Your task to perform on an android device: turn off translation in the chrome app Image 0: 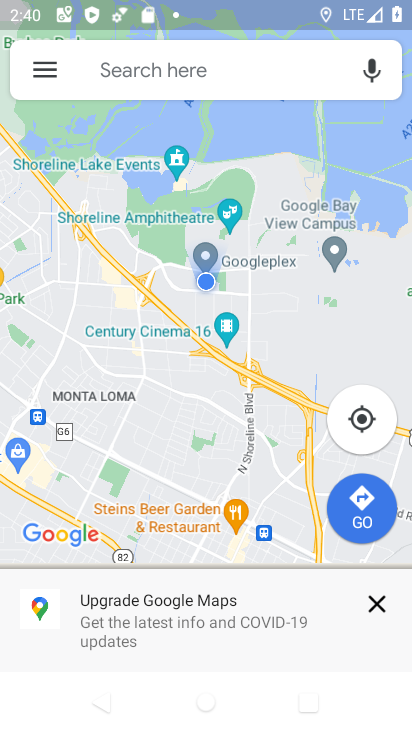
Step 0: press home button
Your task to perform on an android device: turn off translation in the chrome app Image 1: 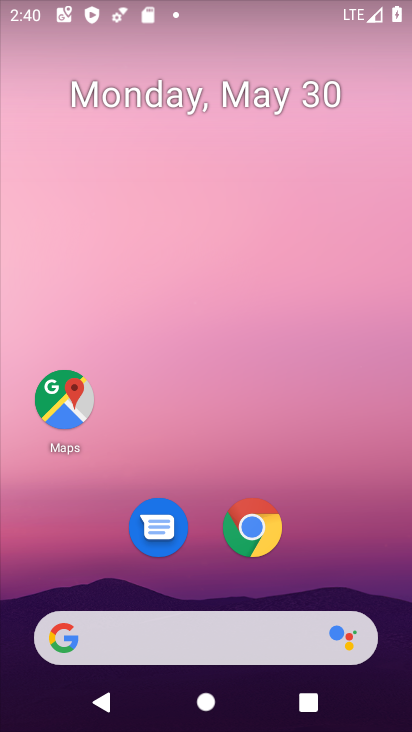
Step 1: click (255, 527)
Your task to perform on an android device: turn off translation in the chrome app Image 2: 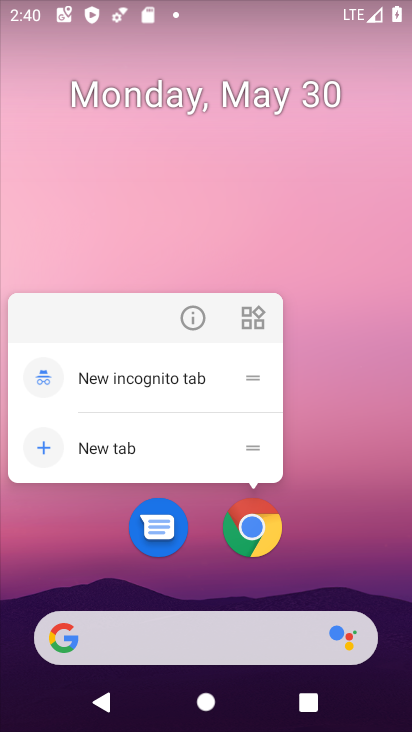
Step 2: click (255, 521)
Your task to perform on an android device: turn off translation in the chrome app Image 3: 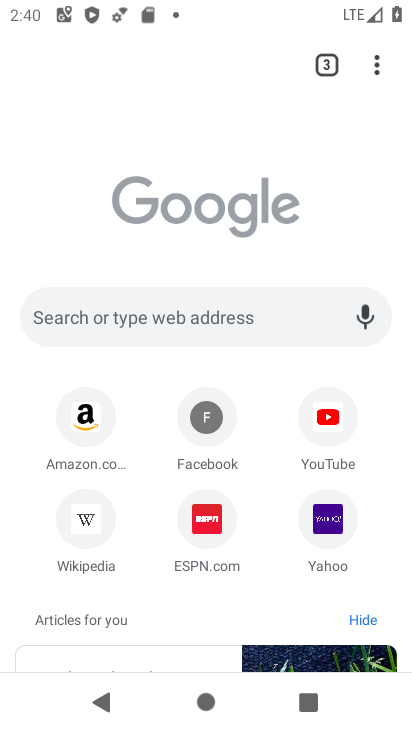
Step 3: drag from (380, 55) to (148, 552)
Your task to perform on an android device: turn off translation in the chrome app Image 4: 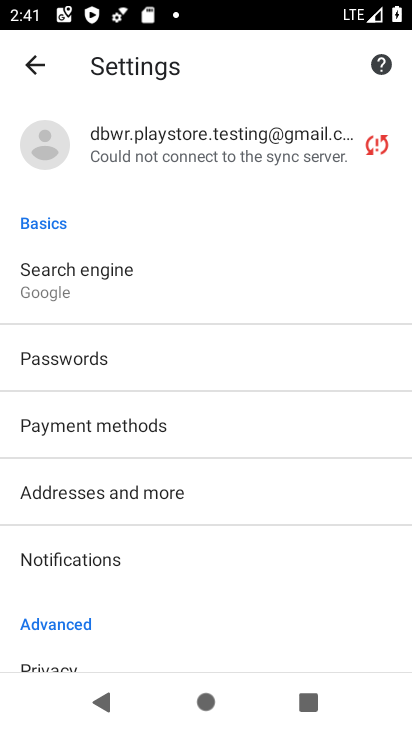
Step 4: drag from (131, 602) to (162, 226)
Your task to perform on an android device: turn off translation in the chrome app Image 5: 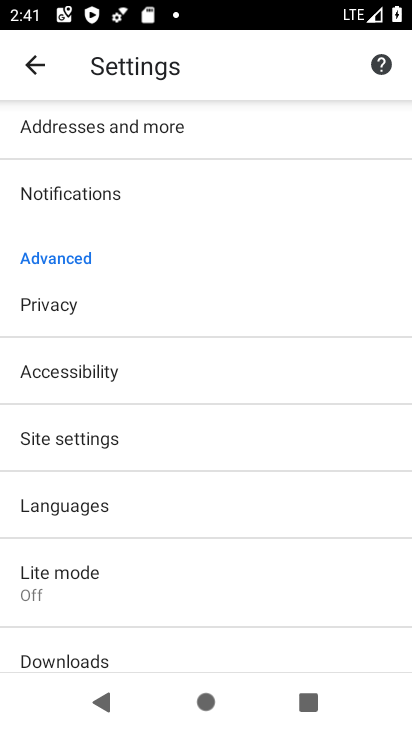
Step 5: click (82, 501)
Your task to perform on an android device: turn off translation in the chrome app Image 6: 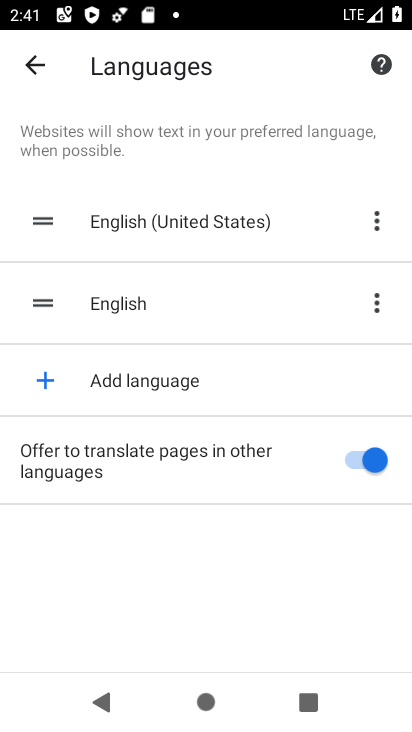
Step 6: click (352, 460)
Your task to perform on an android device: turn off translation in the chrome app Image 7: 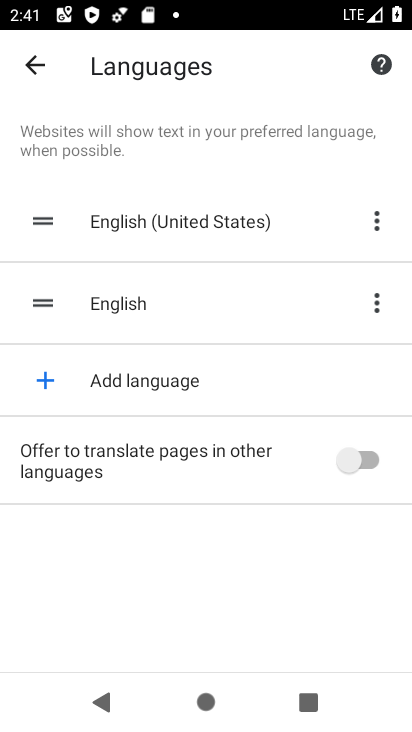
Step 7: task complete